Your task to perform on an android device: Show me recent news Image 0: 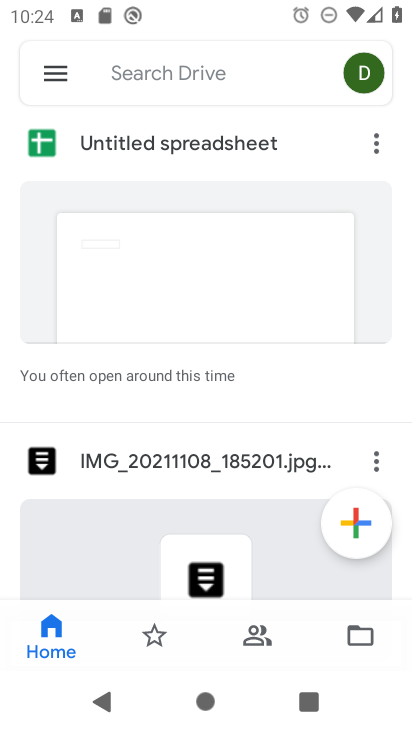
Step 0: press home button
Your task to perform on an android device: Show me recent news Image 1: 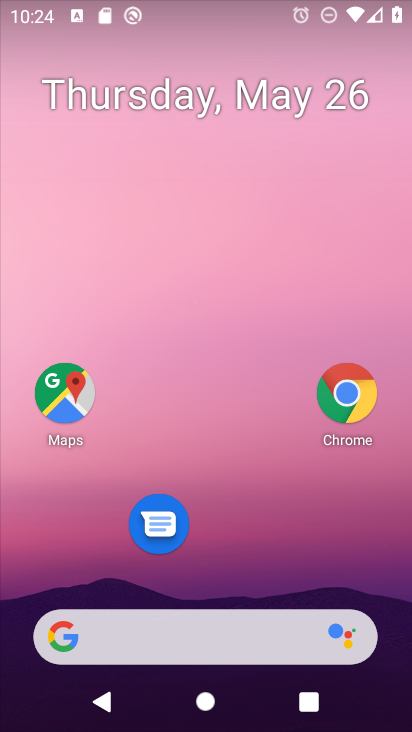
Step 1: click (209, 649)
Your task to perform on an android device: Show me recent news Image 2: 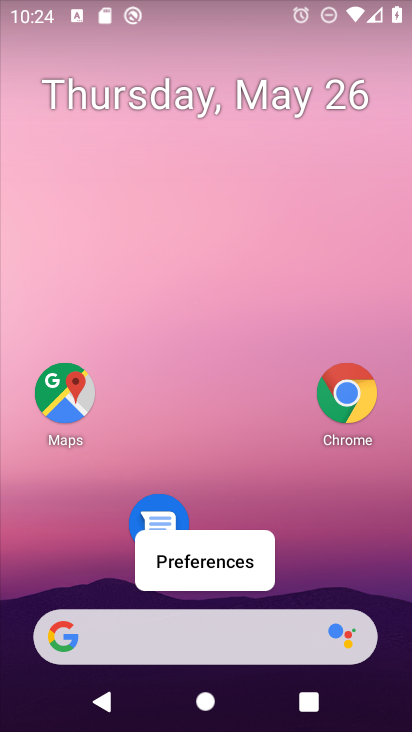
Step 2: click (160, 650)
Your task to perform on an android device: Show me recent news Image 3: 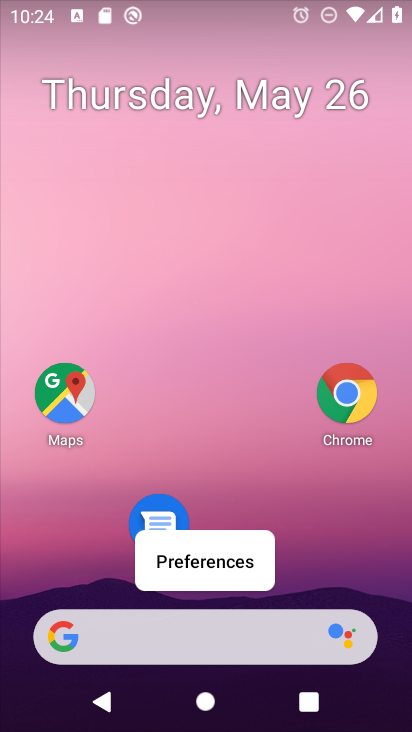
Step 3: click (234, 639)
Your task to perform on an android device: Show me recent news Image 4: 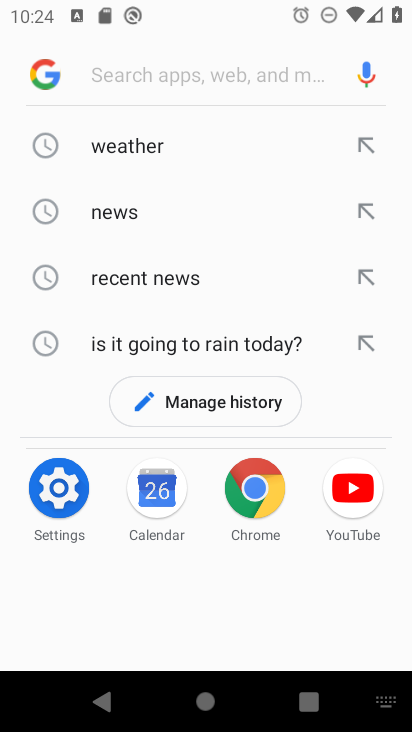
Step 4: click (112, 277)
Your task to perform on an android device: Show me recent news Image 5: 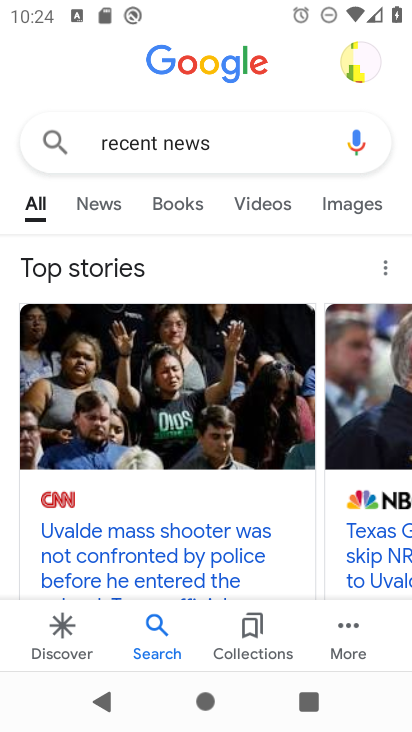
Step 5: task complete